Your task to perform on an android device: open chrome and create a bookmark for the current page Image 0: 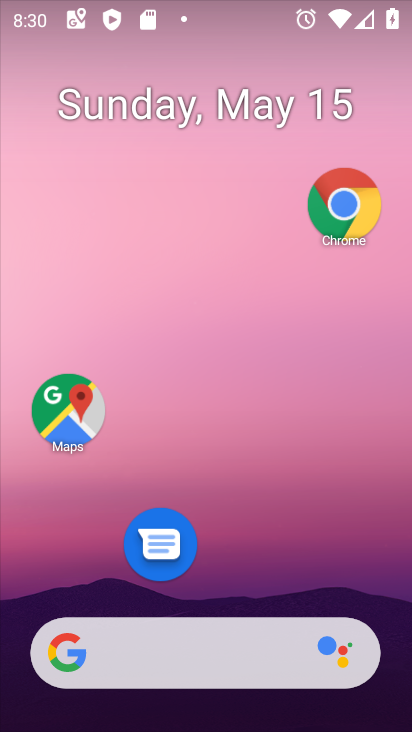
Step 0: click (351, 200)
Your task to perform on an android device: open chrome and create a bookmark for the current page Image 1: 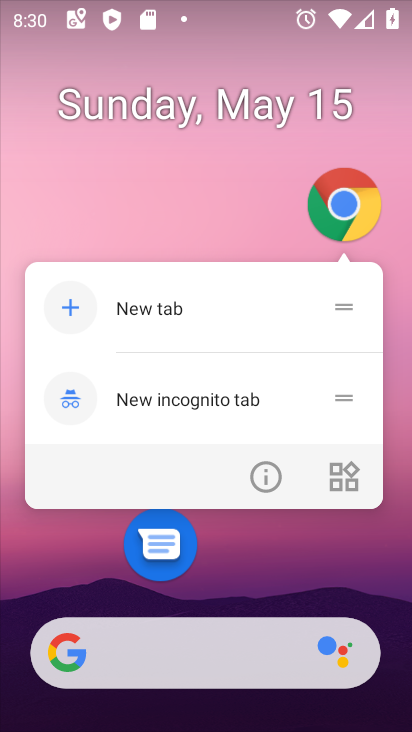
Step 1: click (335, 214)
Your task to perform on an android device: open chrome and create a bookmark for the current page Image 2: 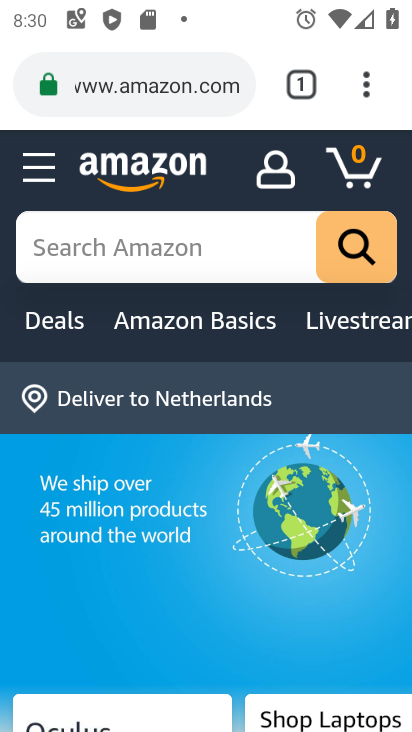
Step 2: click (368, 84)
Your task to perform on an android device: open chrome and create a bookmark for the current page Image 3: 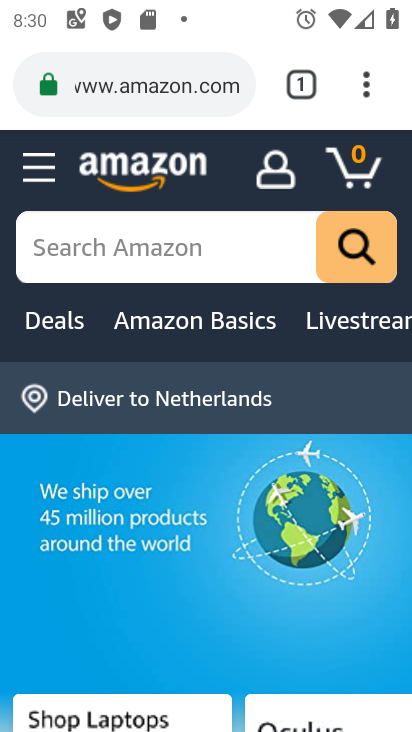
Step 3: click (369, 85)
Your task to perform on an android device: open chrome and create a bookmark for the current page Image 4: 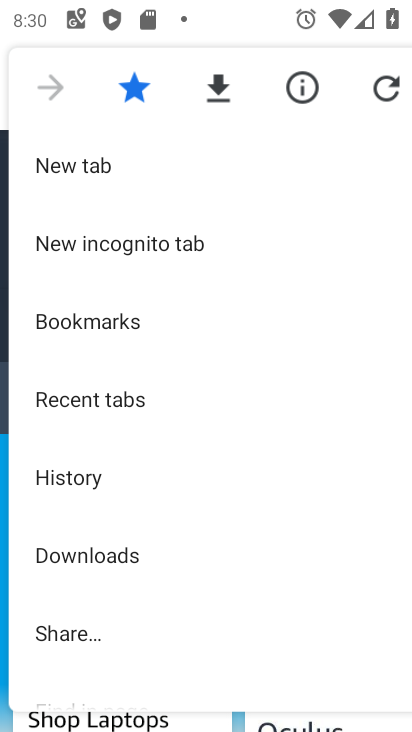
Step 4: task complete